Your task to perform on an android device: Open the phone app and click the voicemail tab. Image 0: 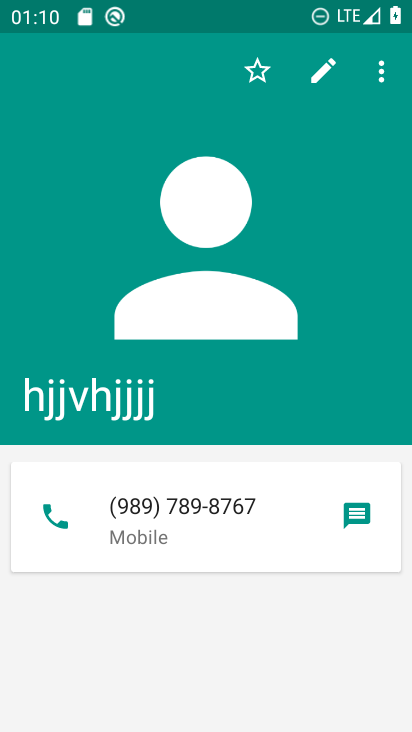
Step 0: press home button
Your task to perform on an android device: Open the phone app and click the voicemail tab. Image 1: 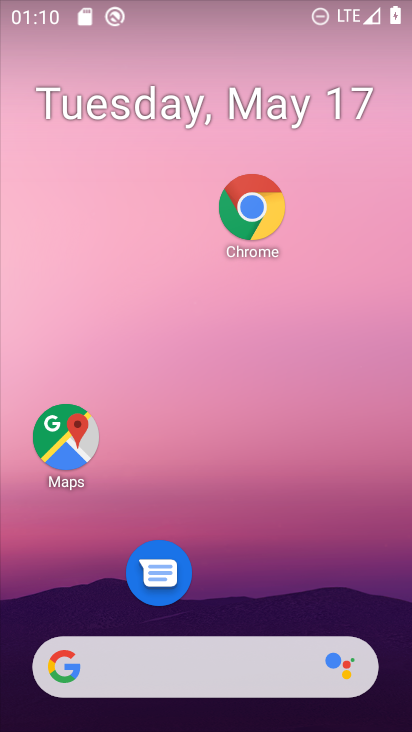
Step 1: drag from (314, 659) to (356, 5)
Your task to perform on an android device: Open the phone app and click the voicemail tab. Image 2: 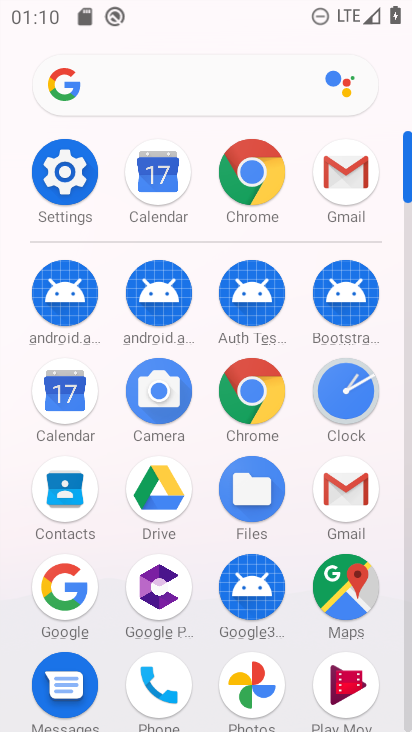
Step 2: click (167, 673)
Your task to perform on an android device: Open the phone app and click the voicemail tab. Image 3: 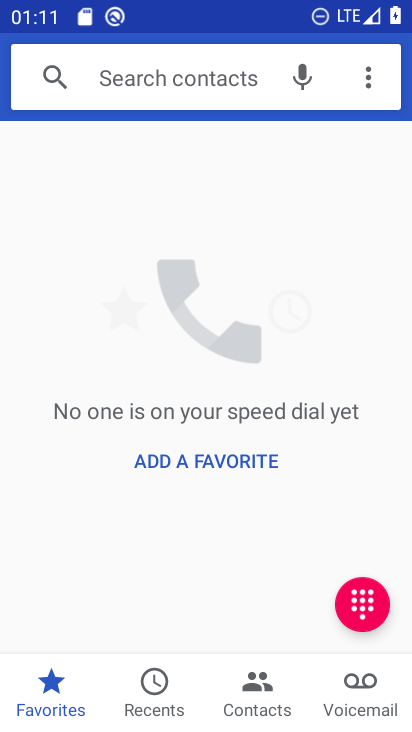
Step 3: click (347, 698)
Your task to perform on an android device: Open the phone app and click the voicemail tab. Image 4: 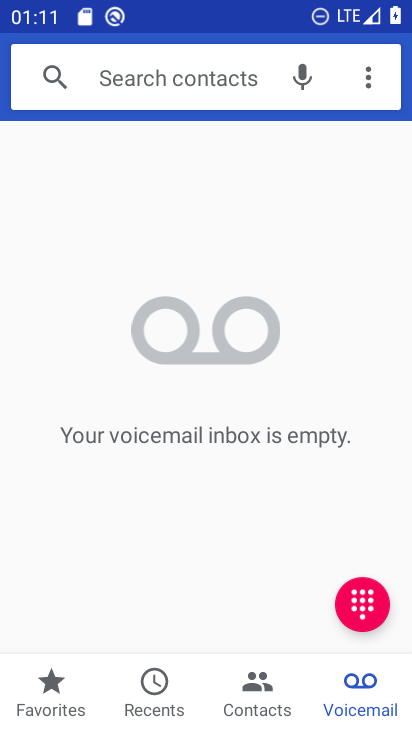
Step 4: task complete